Your task to perform on an android device: add a label to a message in the gmail app Image 0: 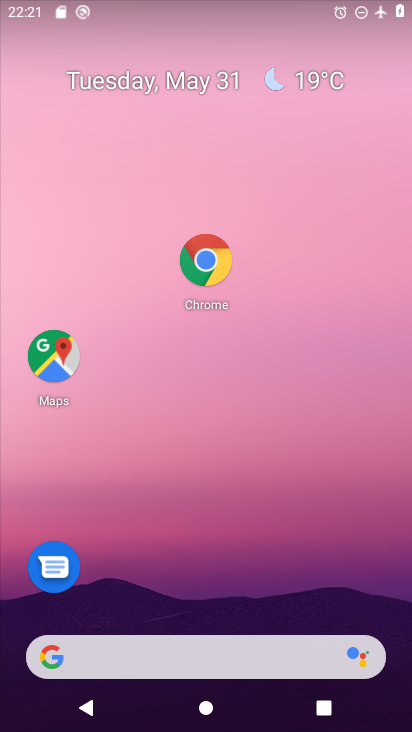
Step 0: drag from (214, 632) to (348, 177)
Your task to perform on an android device: add a label to a message in the gmail app Image 1: 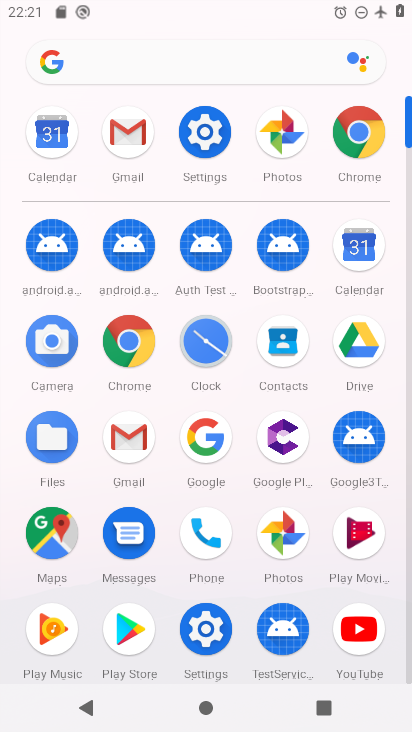
Step 1: click (124, 138)
Your task to perform on an android device: add a label to a message in the gmail app Image 2: 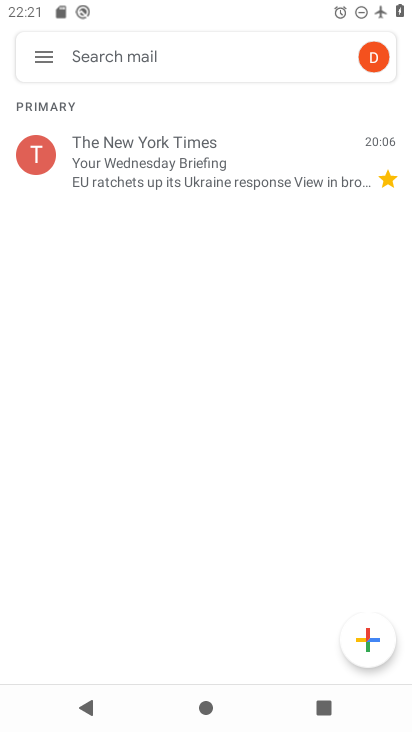
Step 2: click (115, 167)
Your task to perform on an android device: add a label to a message in the gmail app Image 3: 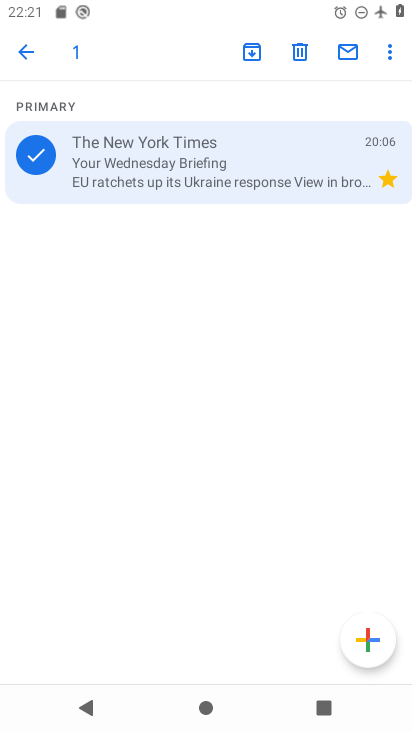
Step 3: click (392, 53)
Your task to perform on an android device: add a label to a message in the gmail app Image 4: 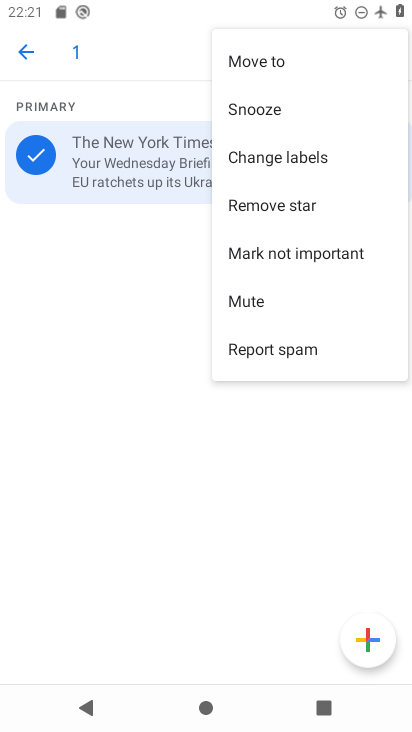
Step 4: click (262, 167)
Your task to perform on an android device: add a label to a message in the gmail app Image 5: 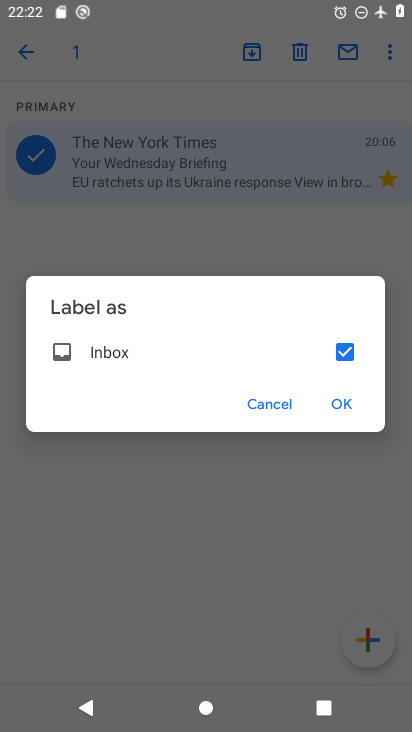
Step 5: click (344, 393)
Your task to perform on an android device: add a label to a message in the gmail app Image 6: 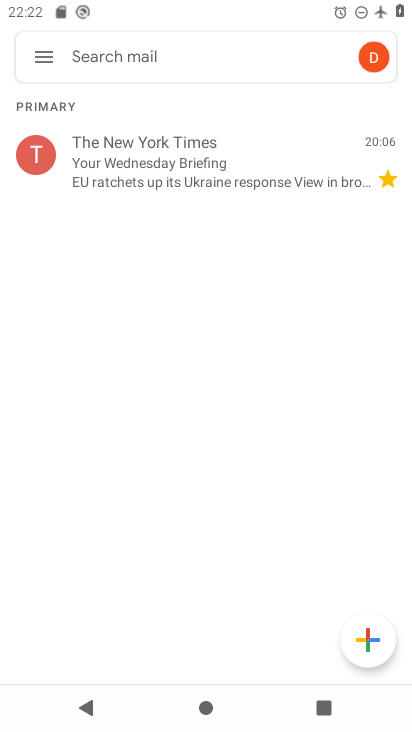
Step 6: task complete